Your task to perform on an android device: Show me the alarms in the clock app Image 0: 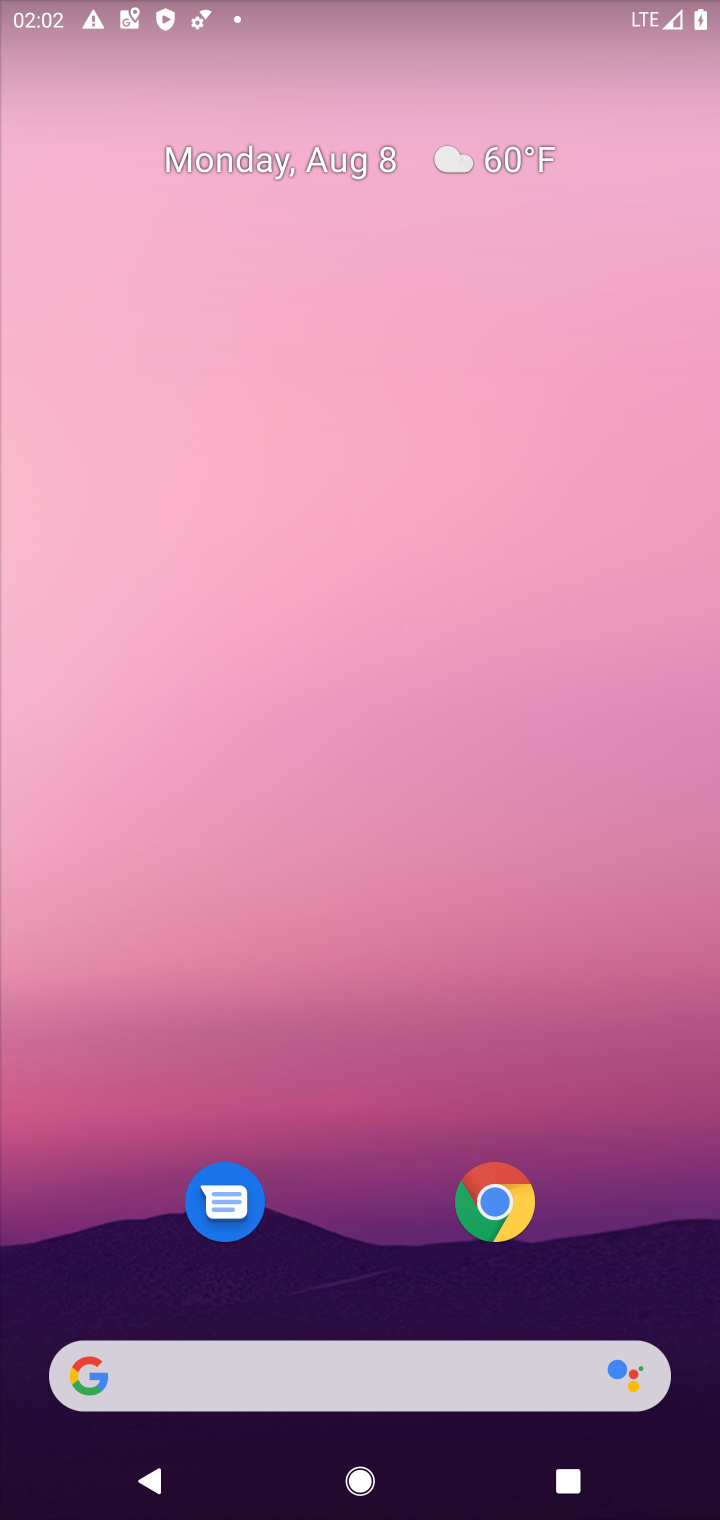
Step 0: drag from (328, 699) to (373, 245)
Your task to perform on an android device: Show me the alarms in the clock app Image 1: 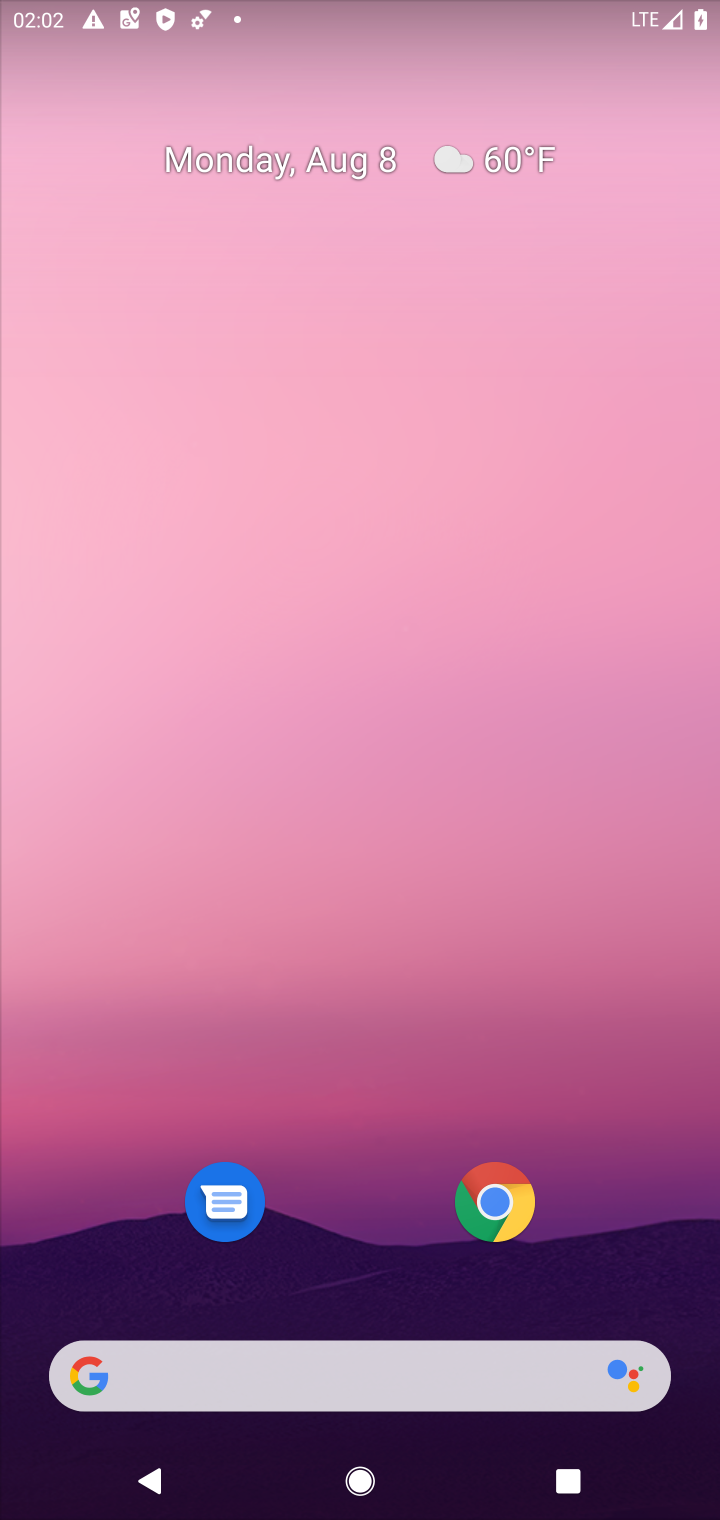
Step 1: drag from (363, 567) to (362, 154)
Your task to perform on an android device: Show me the alarms in the clock app Image 2: 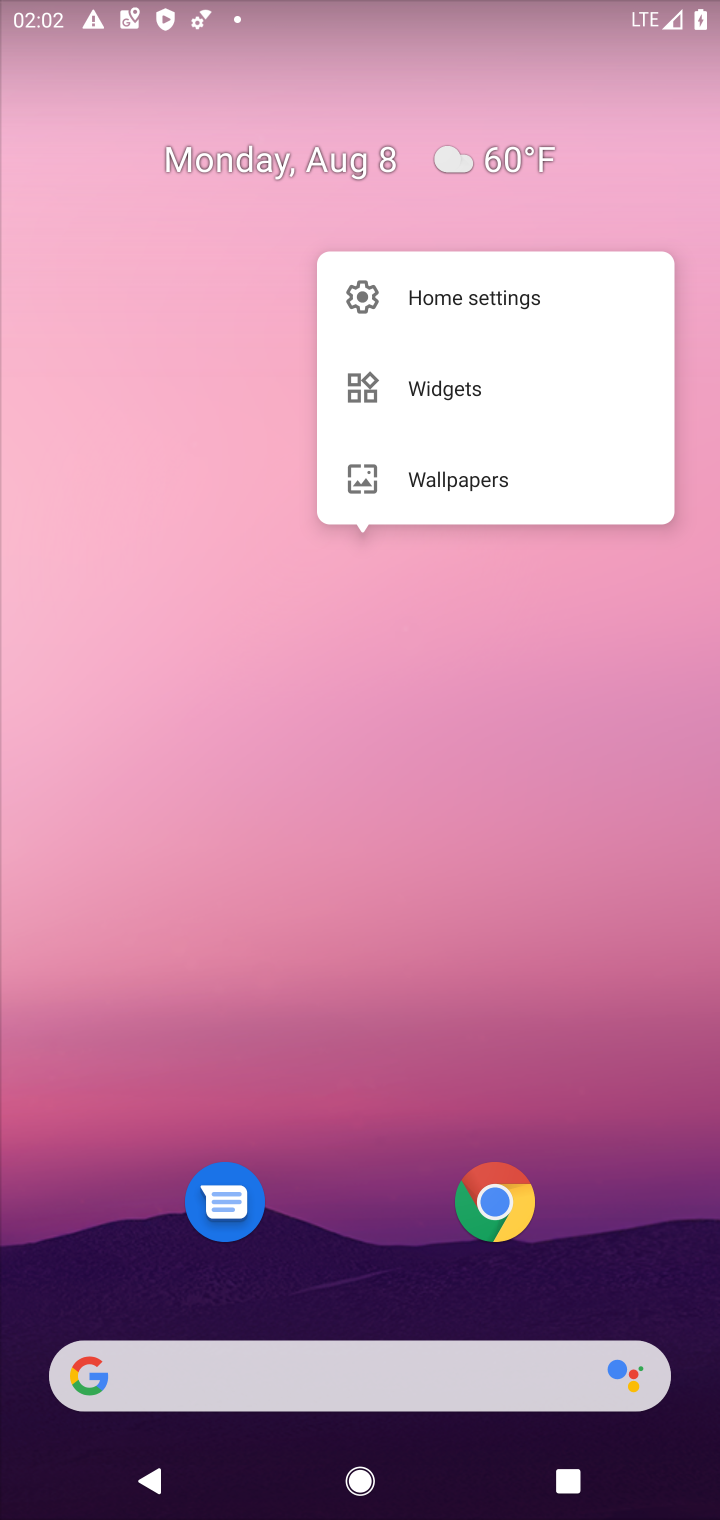
Step 2: click (287, 1314)
Your task to perform on an android device: Show me the alarms in the clock app Image 3: 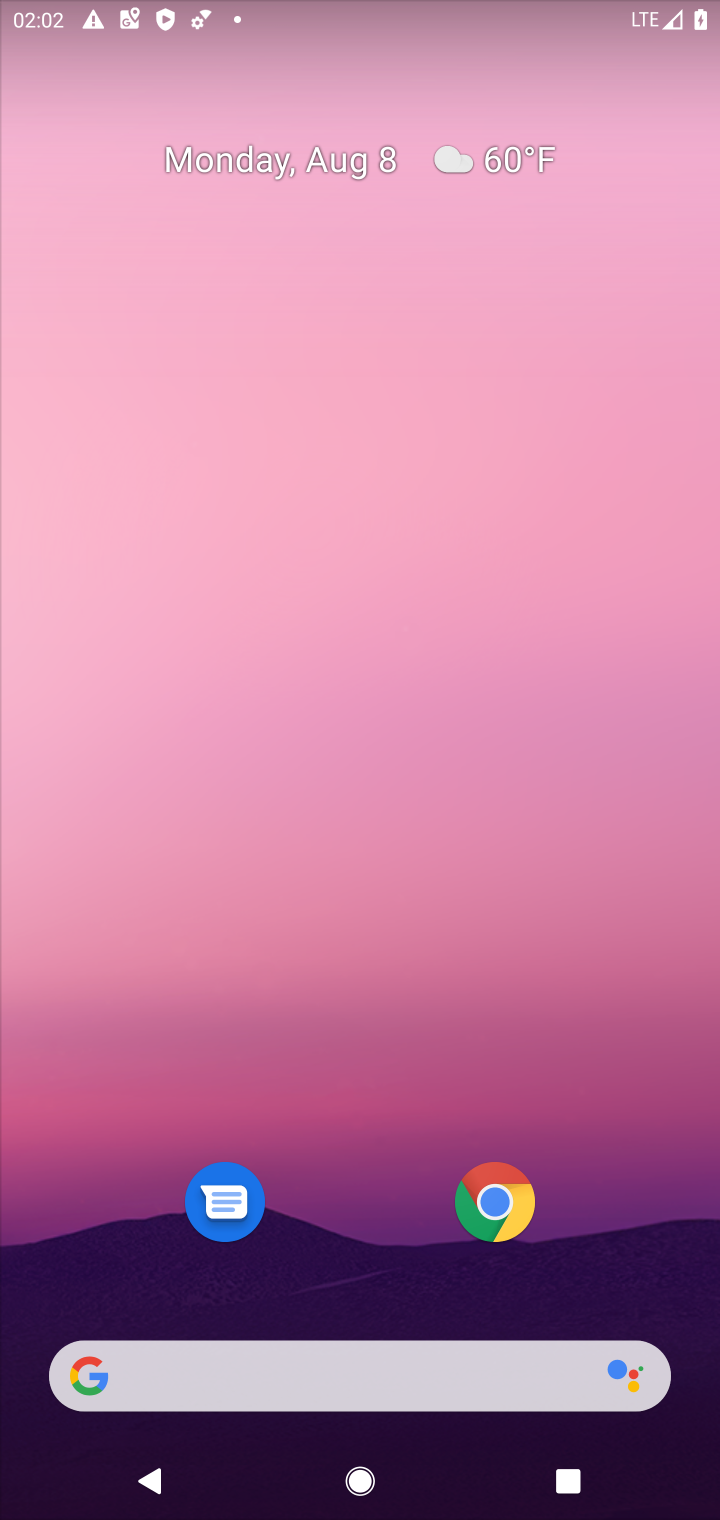
Step 3: drag from (287, 1297) to (344, 457)
Your task to perform on an android device: Show me the alarms in the clock app Image 4: 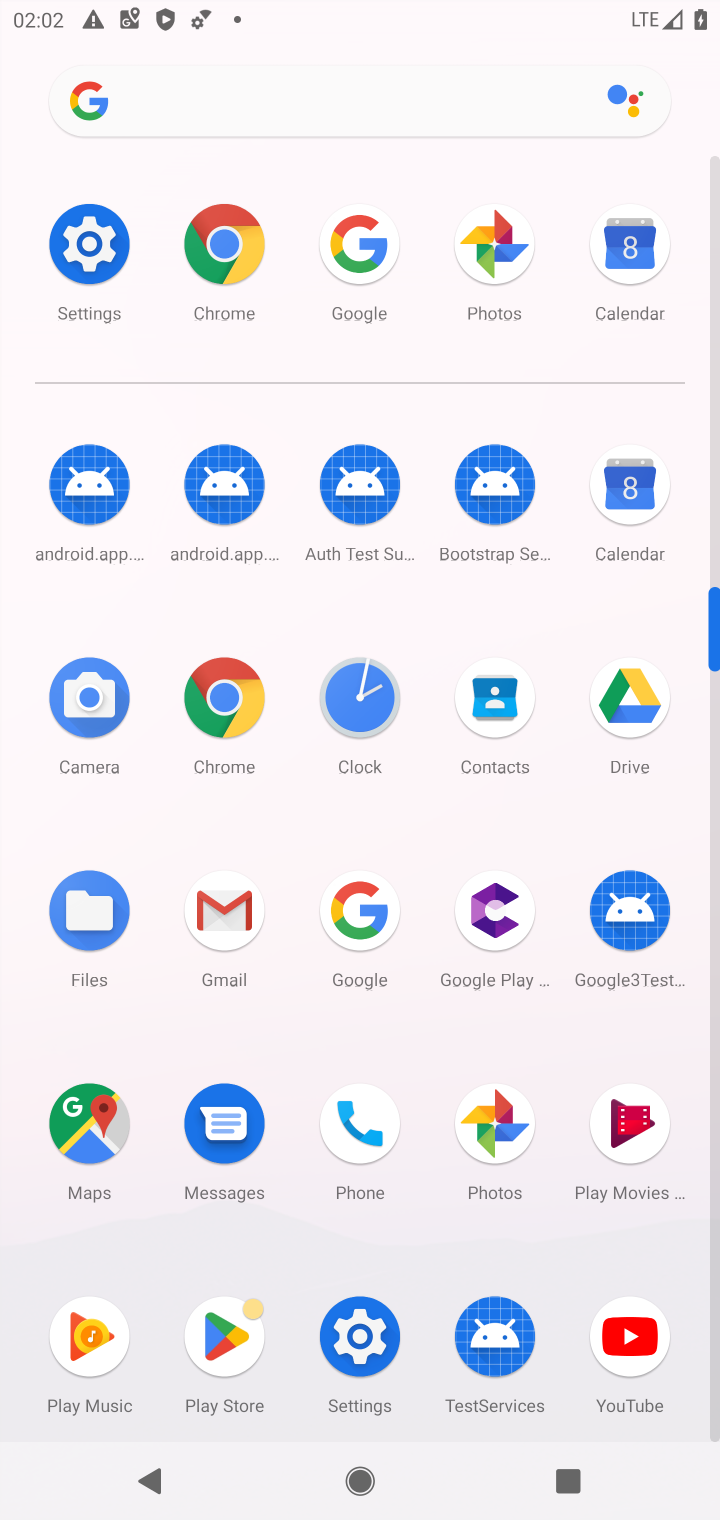
Step 4: click (360, 735)
Your task to perform on an android device: Show me the alarms in the clock app Image 5: 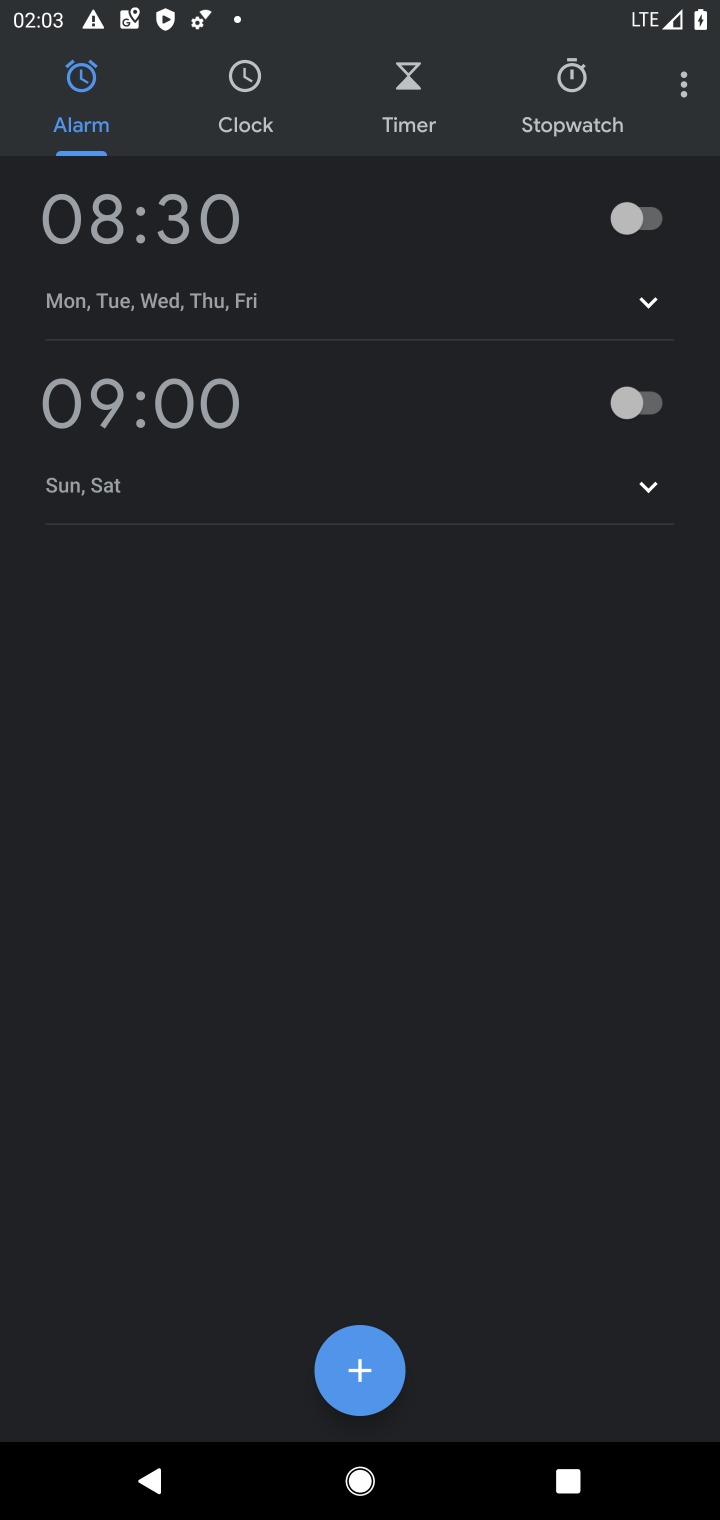
Step 5: task complete